Your task to perform on an android device: Empty the shopping cart on target. Add corsair k70 to the cart on target Image 0: 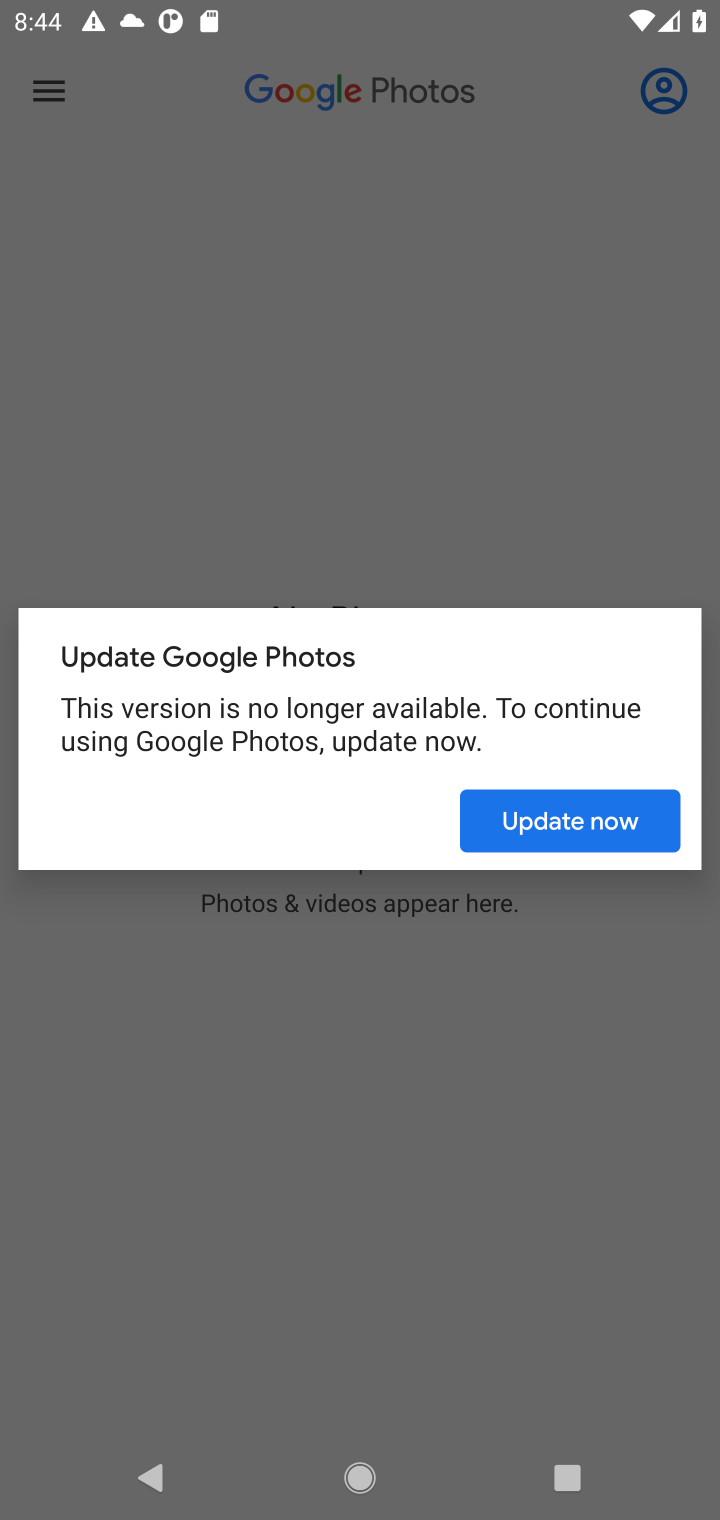
Step 0: press home button
Your task to perform on an android device: Empty the shopping cart on target. Add corsair k70 to the cart on target Image 1: 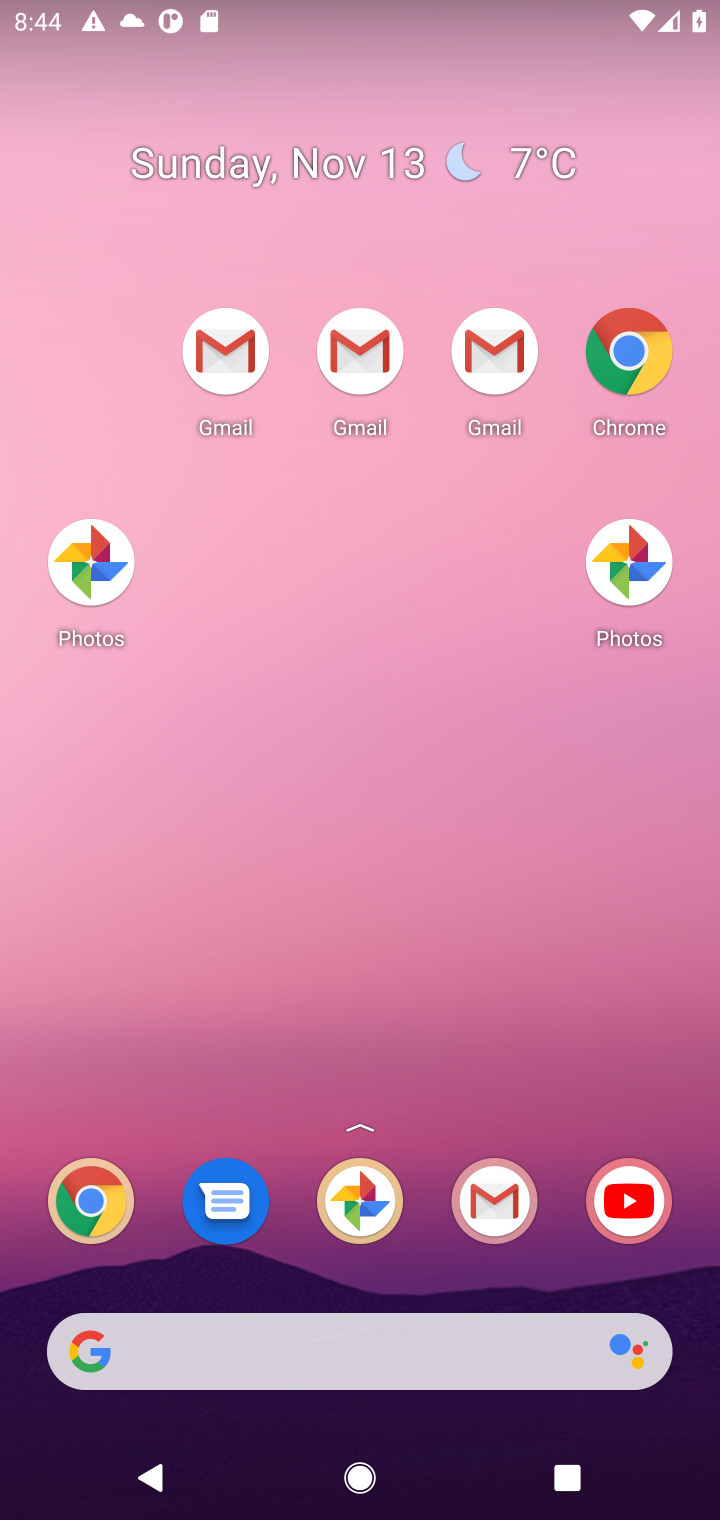
Step 1: drag from (446, 980) to (429, 260)
Your task to perform on an android device: Empty the shopping cart on target. Add corsair k70 to the cart on target Image 2: 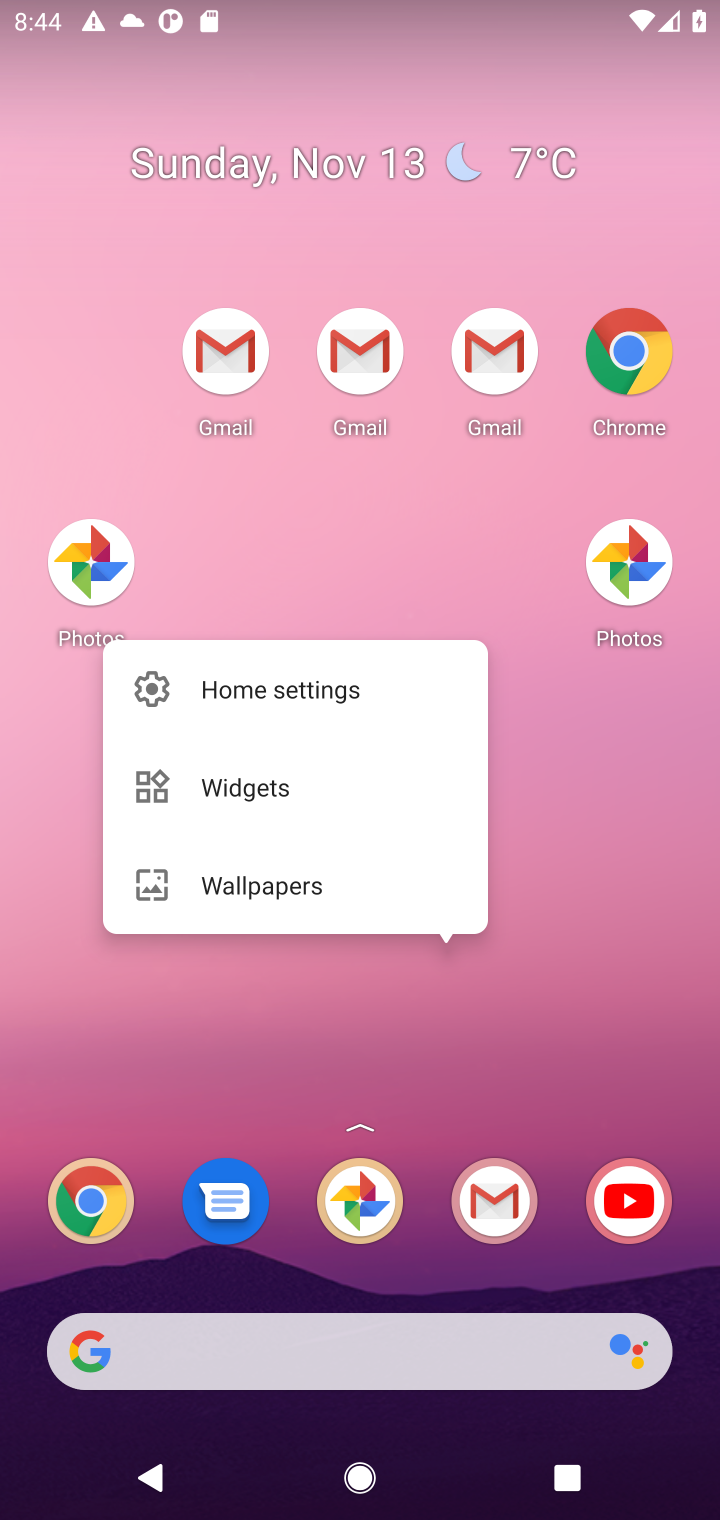
Step 2: click (420, 1300)
Your task to perform on an android device: Empty the shopping cart on target. Add corsair k70 to the cart on target Image 3: 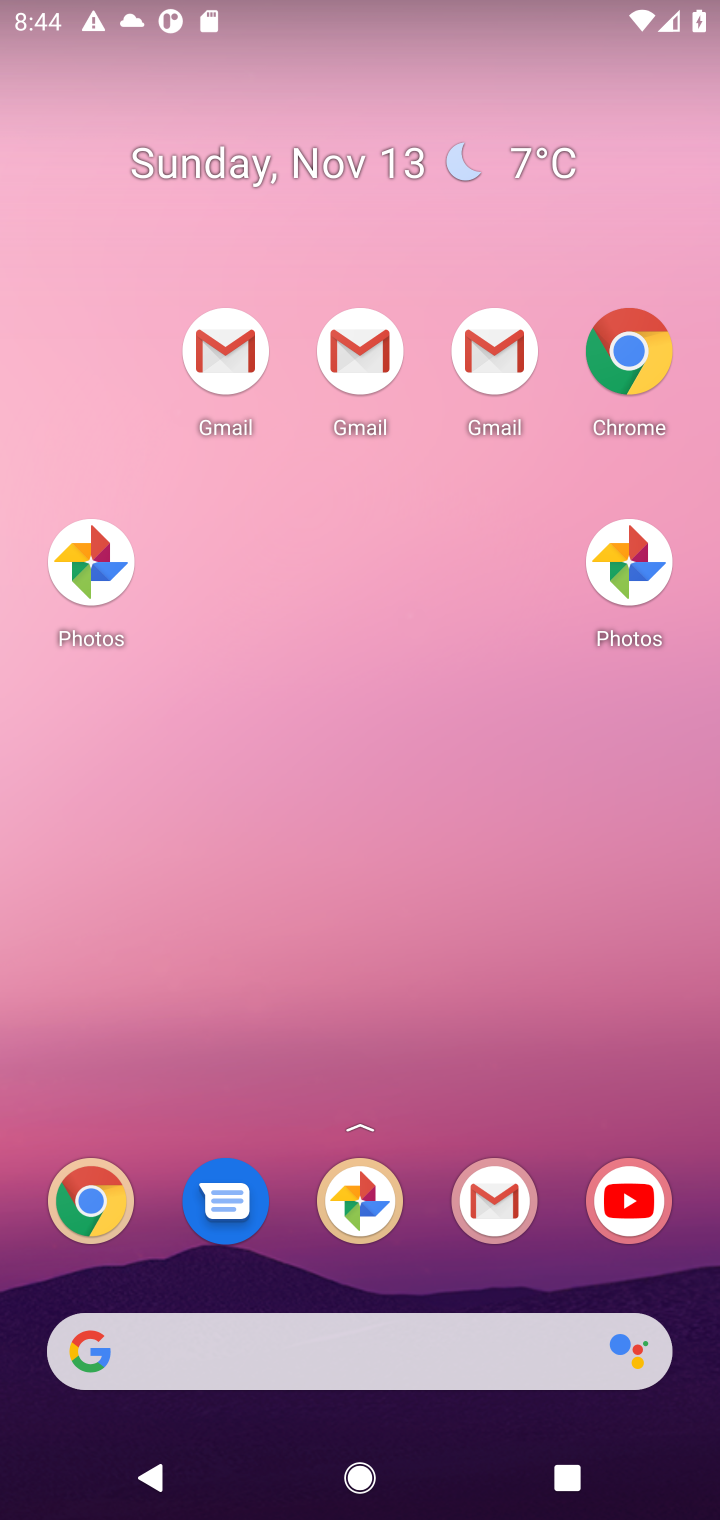
Step 3: drag from (422, 1219) to (414, 168)
Your task to perform on an android device: Empty the shopping cart on target. Add corsair k70 to the cart on target Image 4: 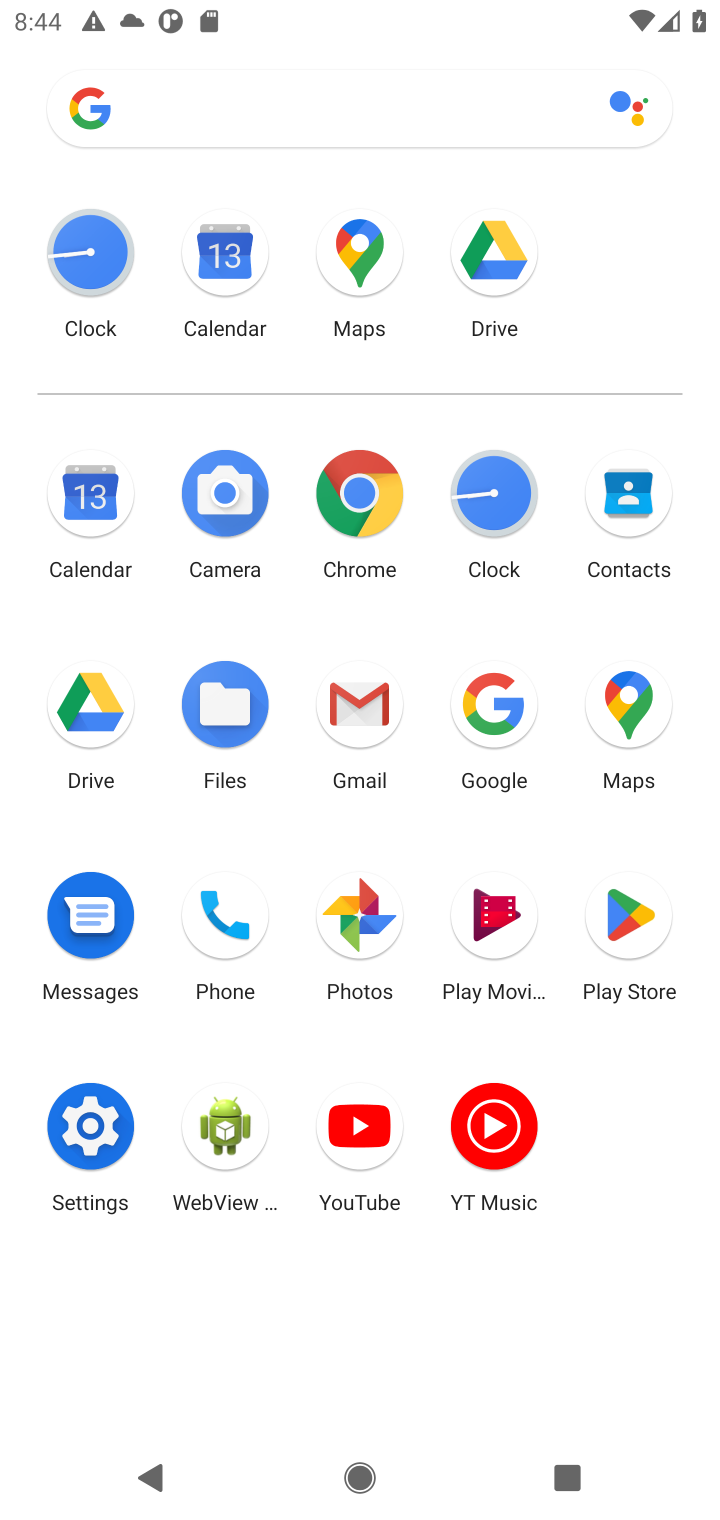
Step 4: click (364, 503)
Your task to perform on an android device: Empty the shopping cart on target. Add corsair k70 to the cart on target Image 5: 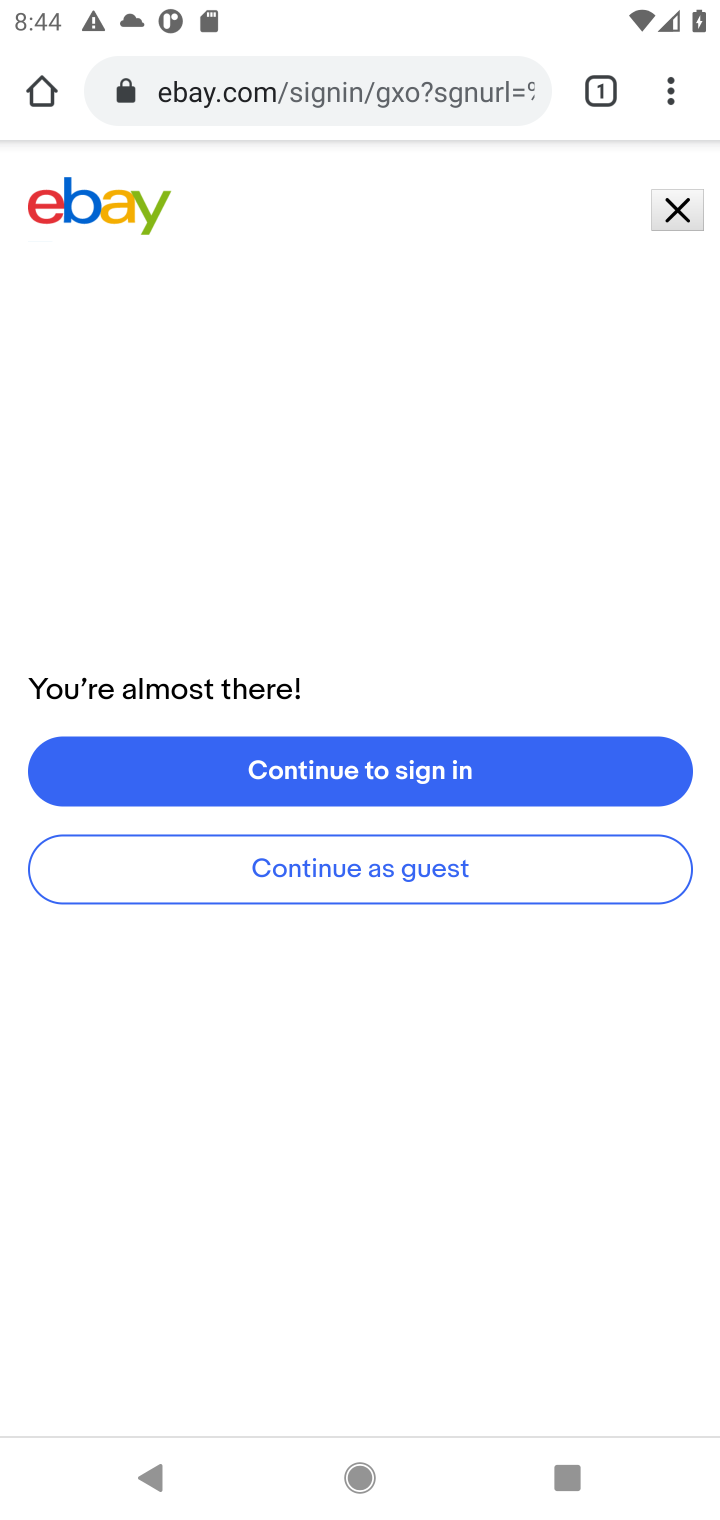
Step 5: click (469, 83)
Your task to perform on an android device: Empty the shopping cart on target. Add corsair k70 to the cart on target Image 6: 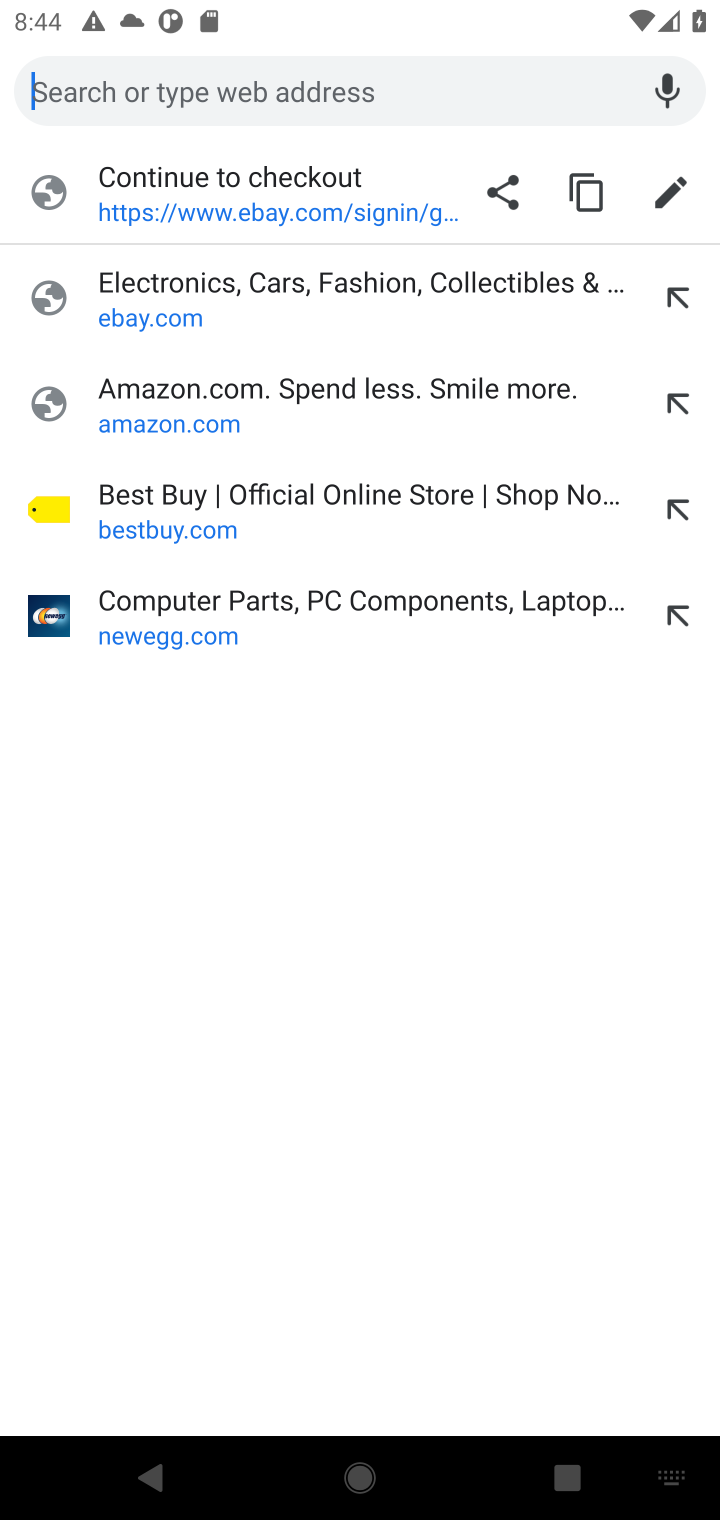
Step 6: type "target.com"
Your task to perform on an android device: Empty the shopping cart on target. Add corsair k70 to the cart on target Image 7: 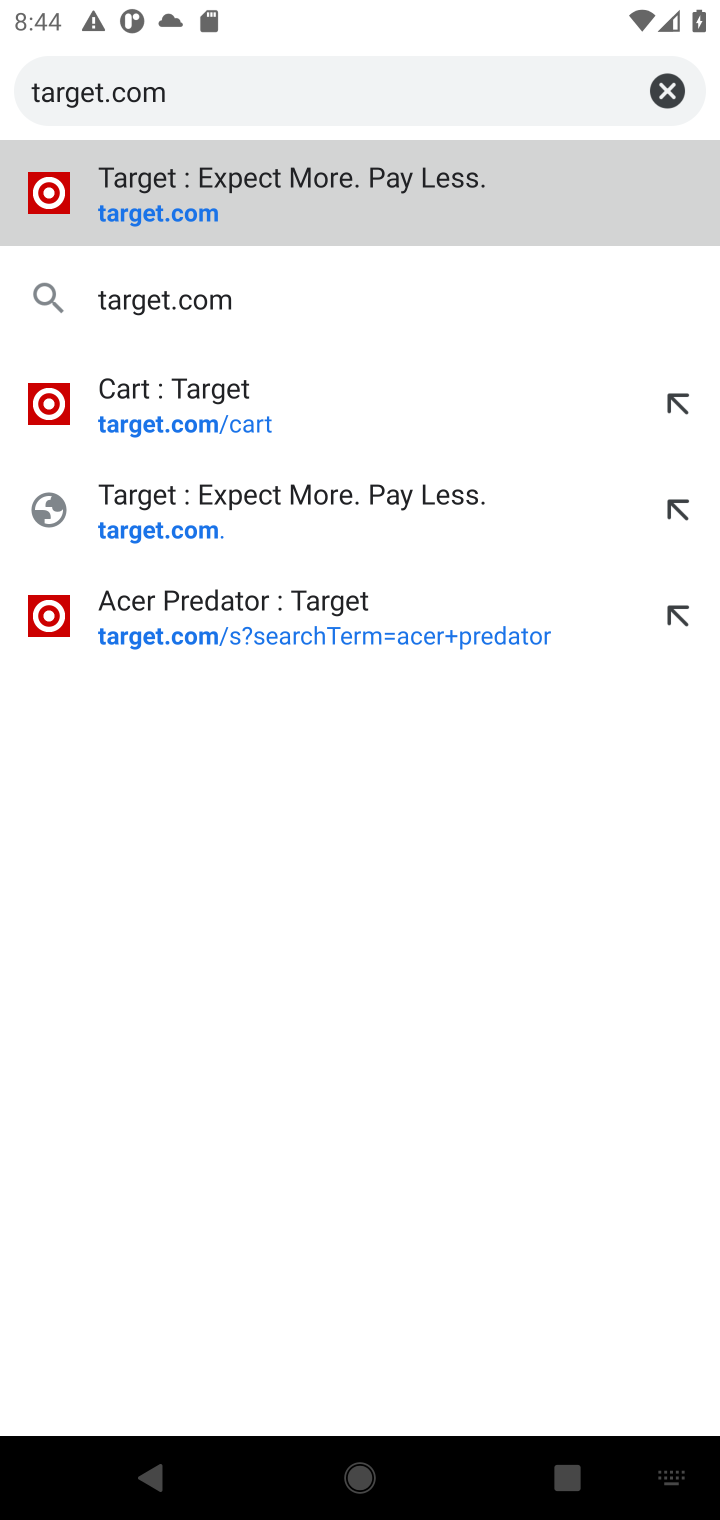
Step 7: press enter
Your task to perform on an android device: Empty the shopping cart on target. Add corsair k70 to the cart on target Image 8: 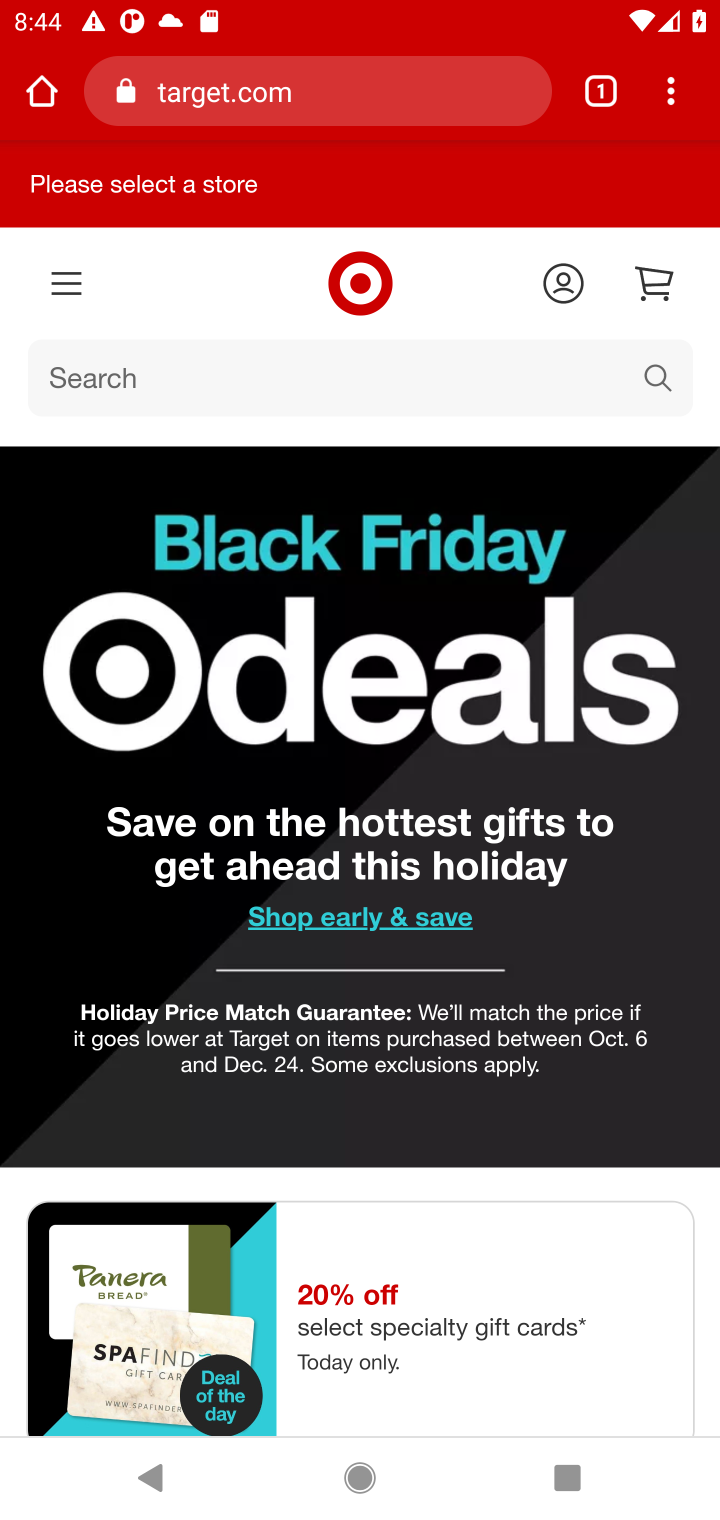
Step 8: click (653, 274)
Your task to perform on an android device: Empty the shopping cart on target. Add corsair k70 to the cart on target Image 9: 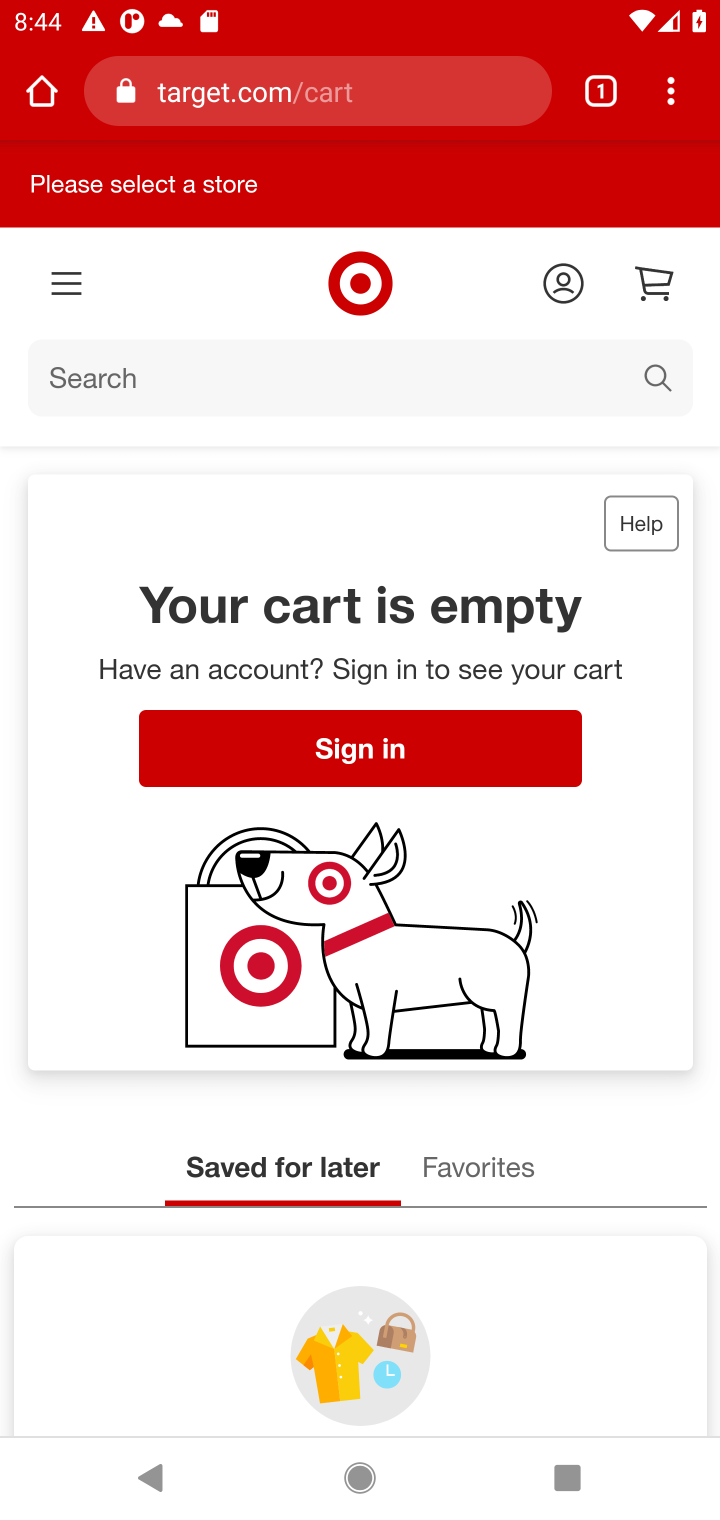
Step 9: click (402, 383)
Your task to perform on an android device: Empty the shopping cart on target. Add corsair k70 to the cart on target Image 10: 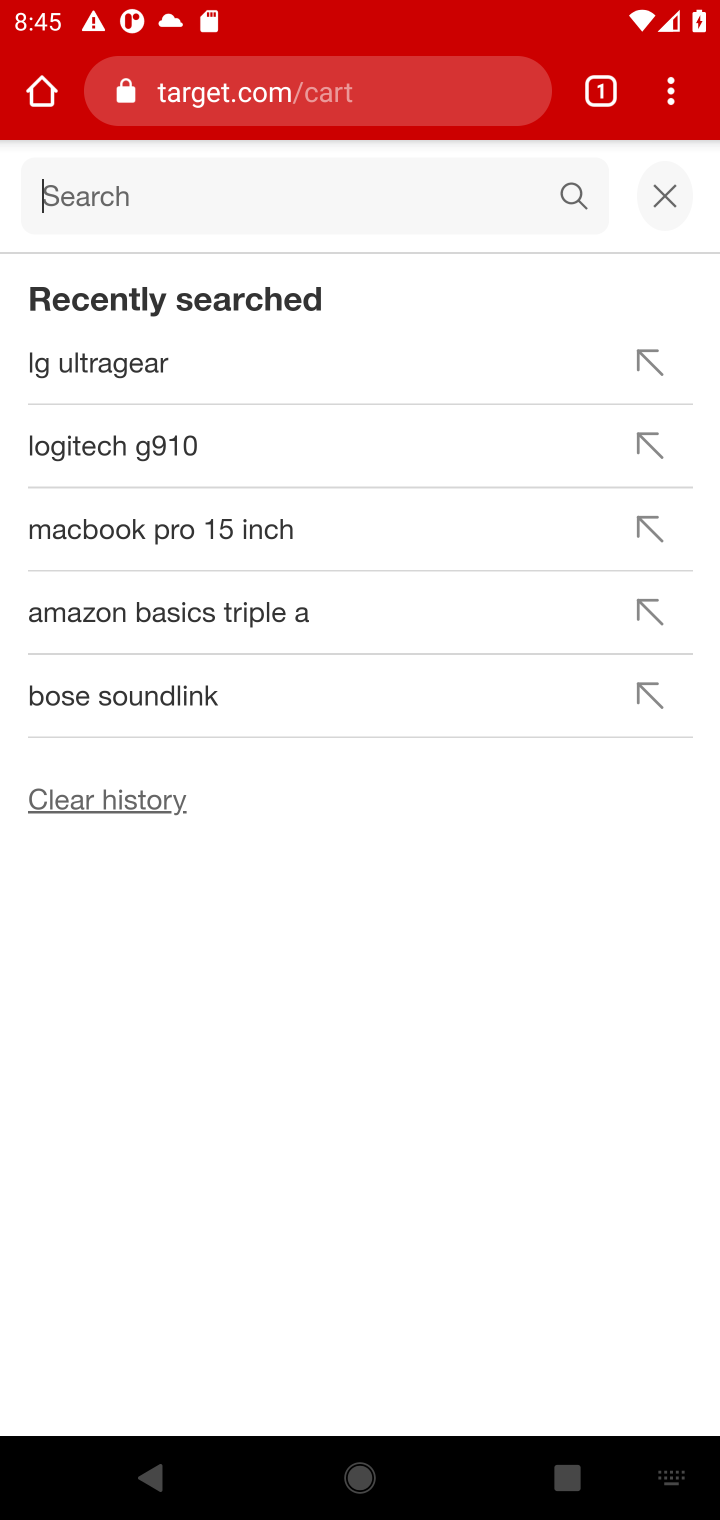
Step 10: type "corsair k70"
Your task to perform on an android device: Empty the shopping cart on target. Add corsair k70 to the cart on target Image 11: 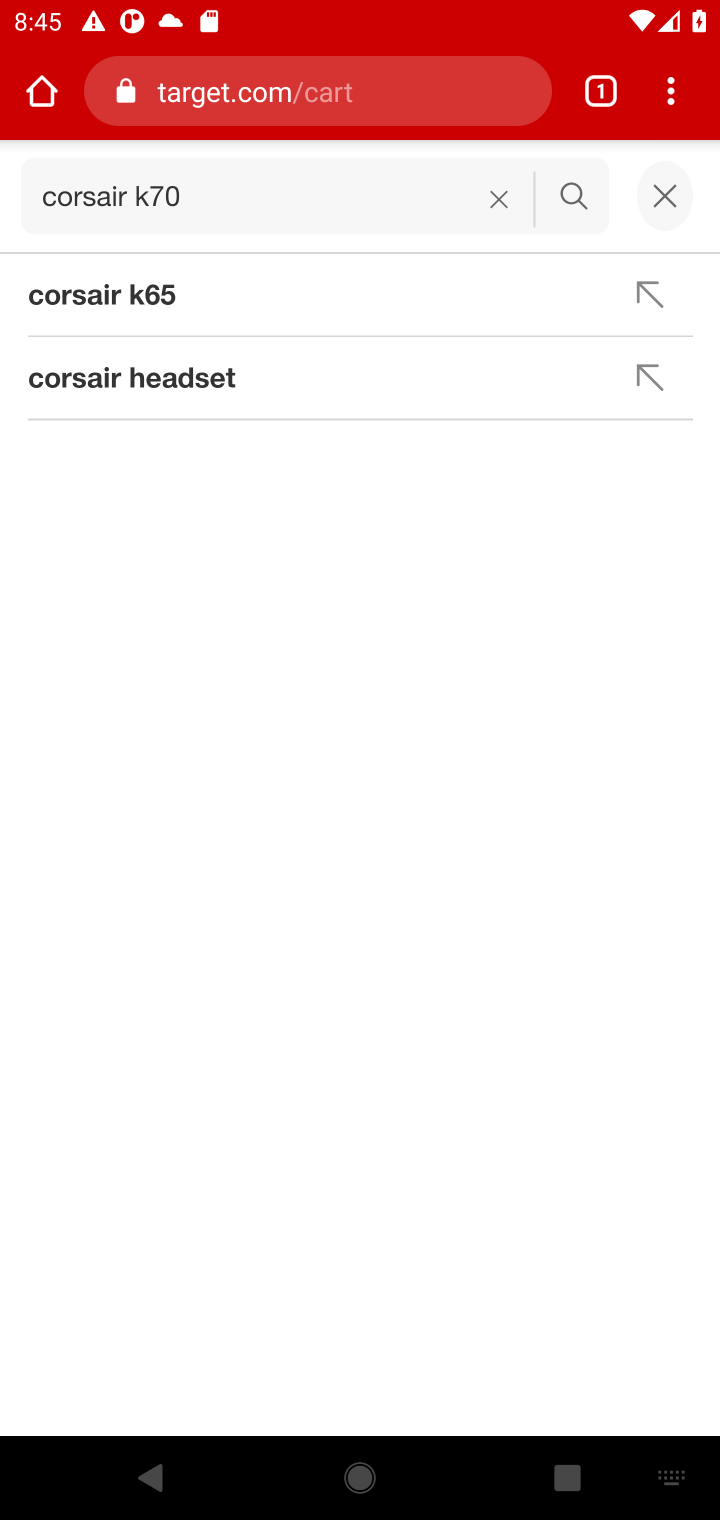
Step 11: press enter
Your task to perform on an android device: Empty the shopping cart on target. Add corsair k70 to the cart on target Image 12: 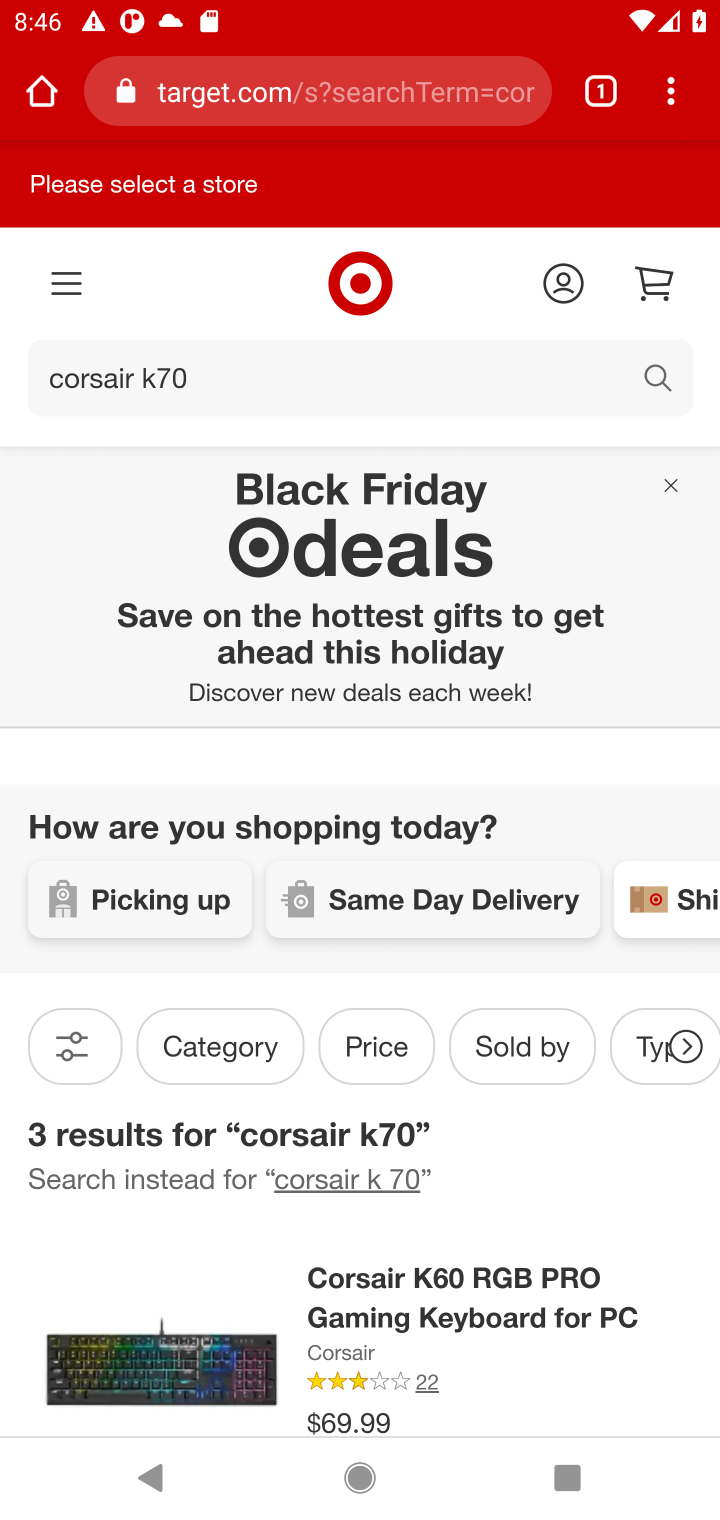
Step 12: task complete